Your task to perform on an android device: See recent photos Image 0: 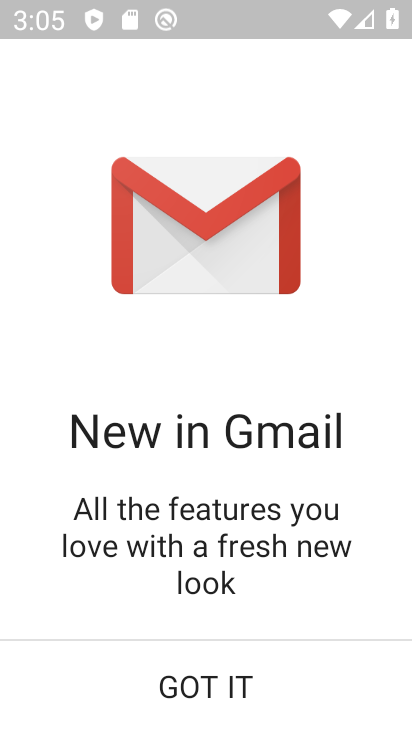
Step 0: press home button
Your task to perform on an android device: See recent photos Image 1: 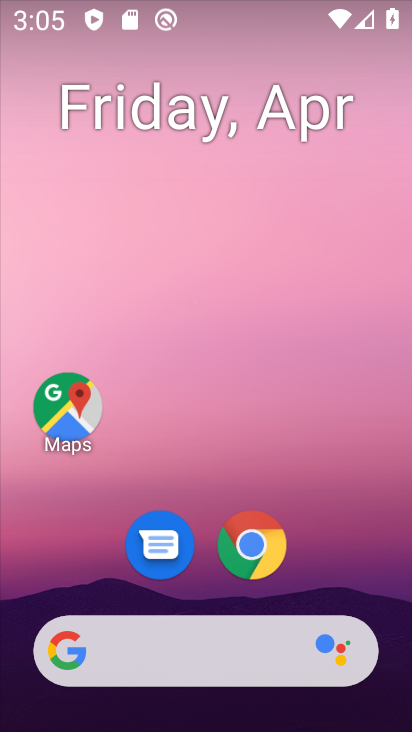
Step 1: drag from (352, 586) to (321, 119)
Your task to perform on an android device: See recent photos Image 2: 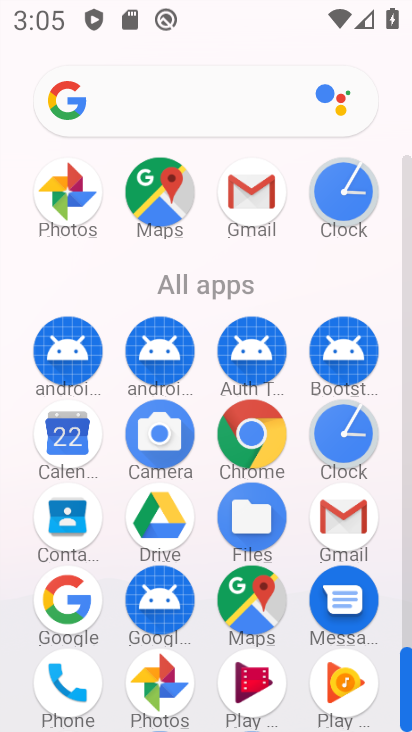
Step 2: click (159, 682)
Your task to perform on an android device: See recent photos Image 3: 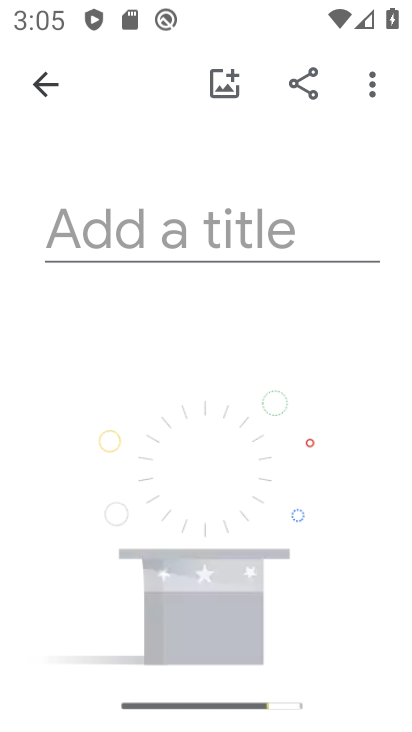
Step 3: task complete